Your task to perform on an android device: uninstall "Google Calendar" Image 0: 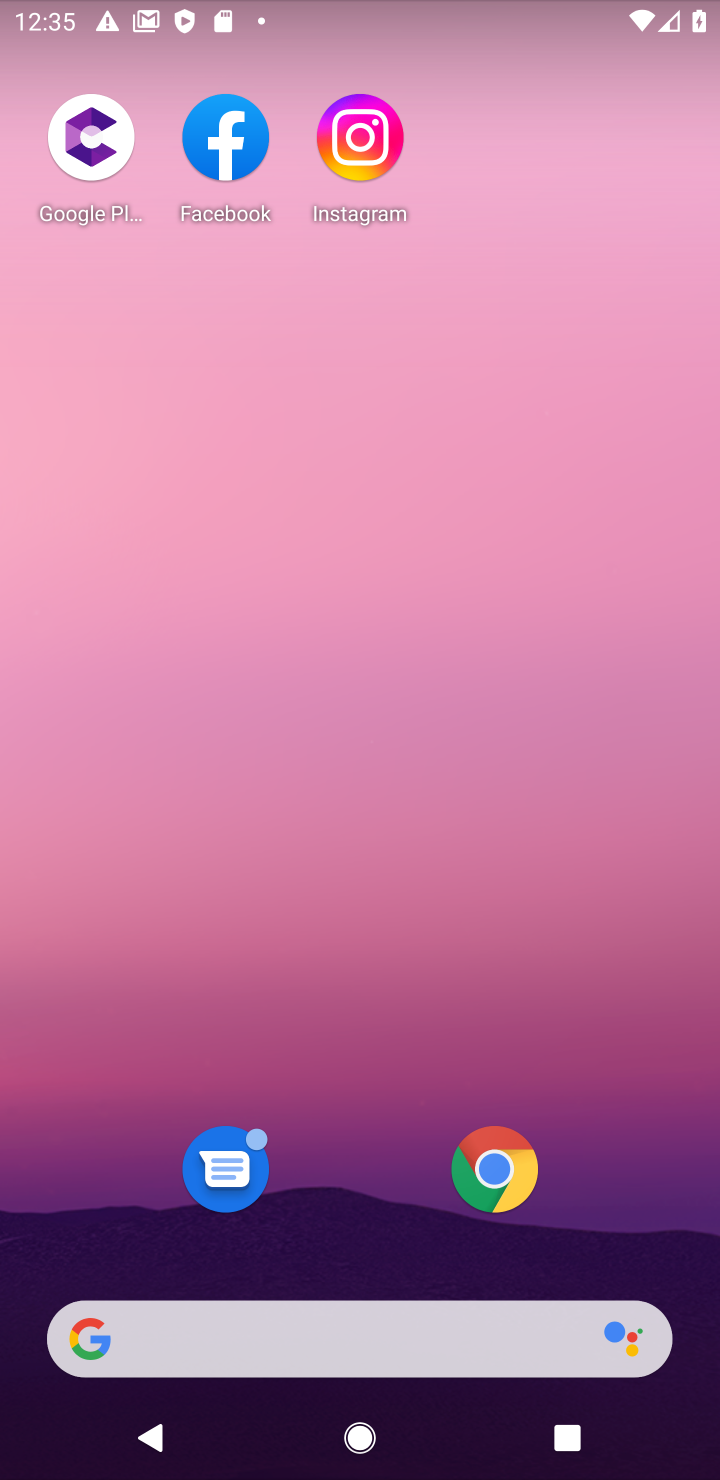
Step 0: drag from (353, 1139) to (645, 271)
Your task to perform on an android device: uninstall "Google Calendar" Image 1: 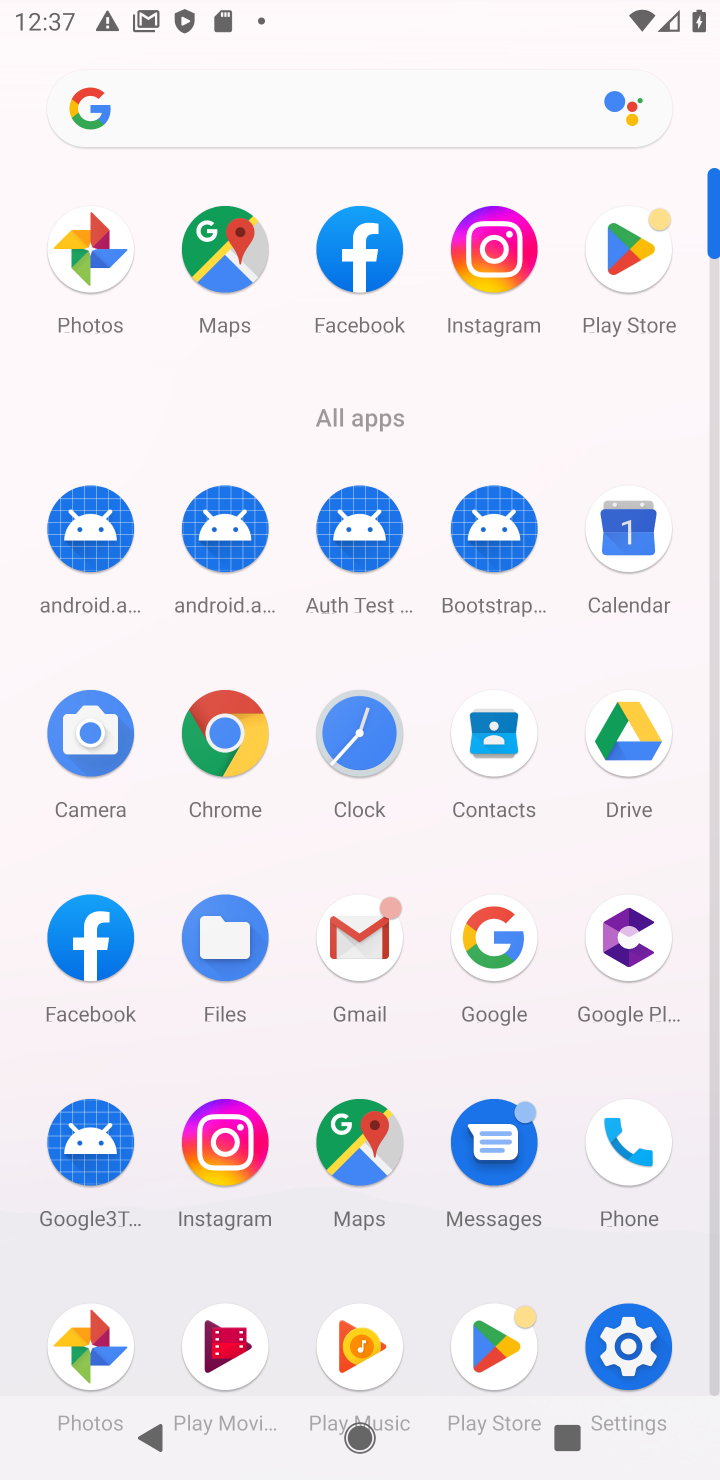
Step 1: click (650, 587)
Your task to perform on an android device: uninstall "Google Calendar" Image 2: 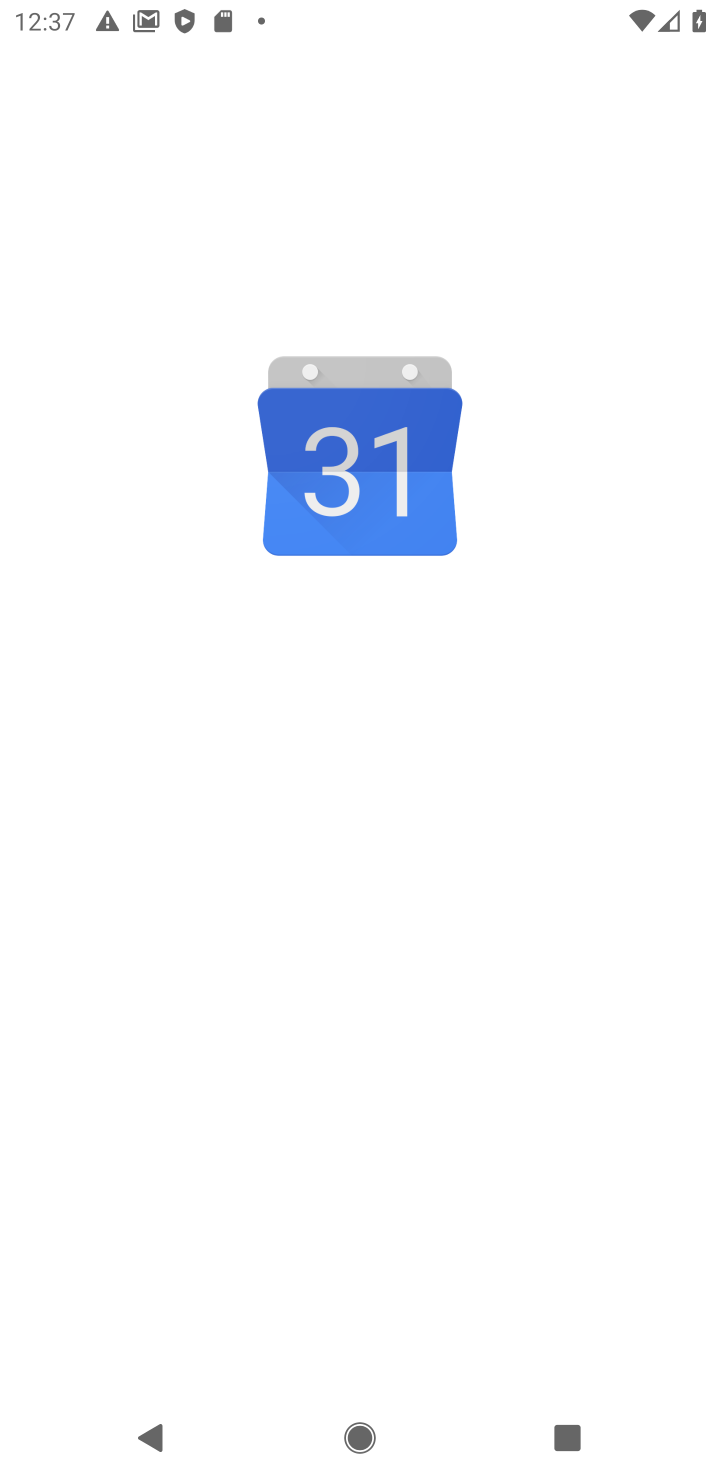
Step 2: press back button
Your task to perform on an android device: uninstall "Google Calendar" Image 3: 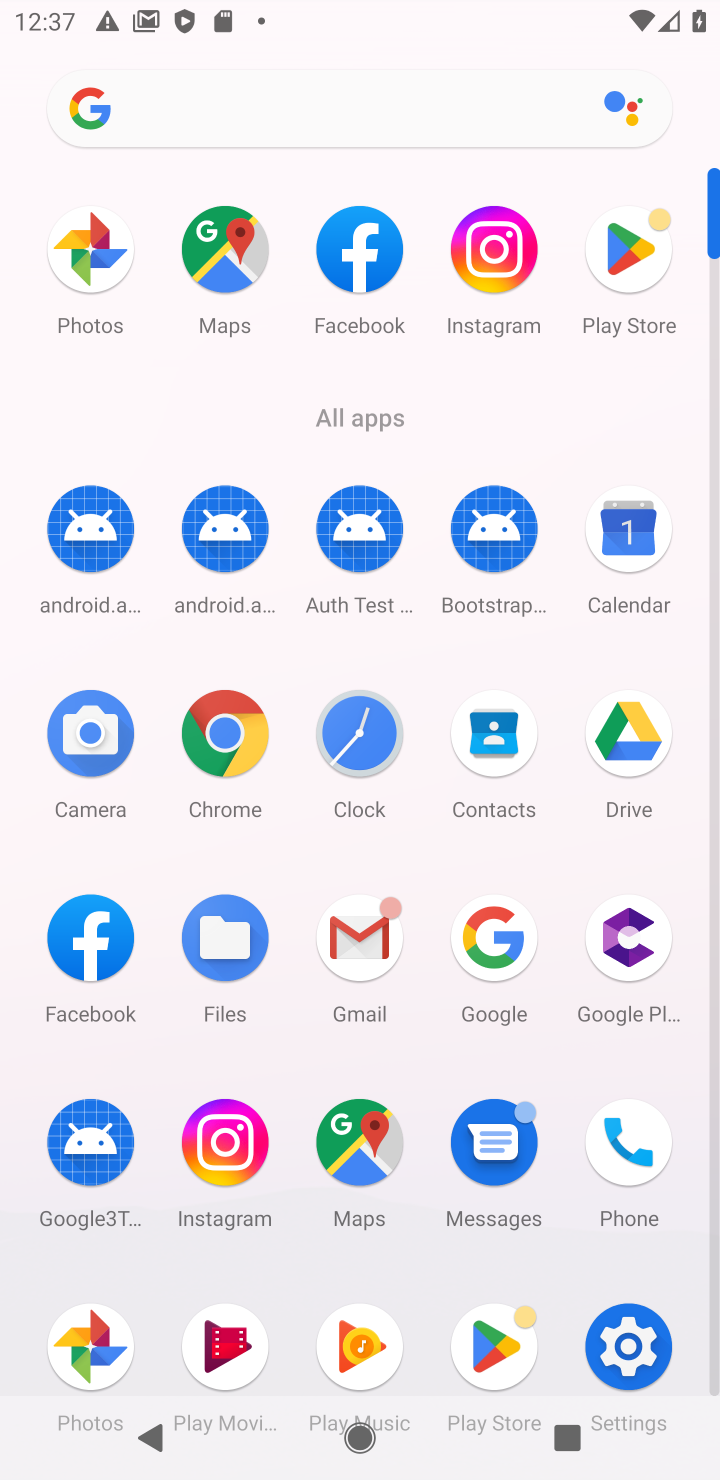
Step 3: press back button
Your task to perform on an android device: uninstall "Google Calendar" Image 4: 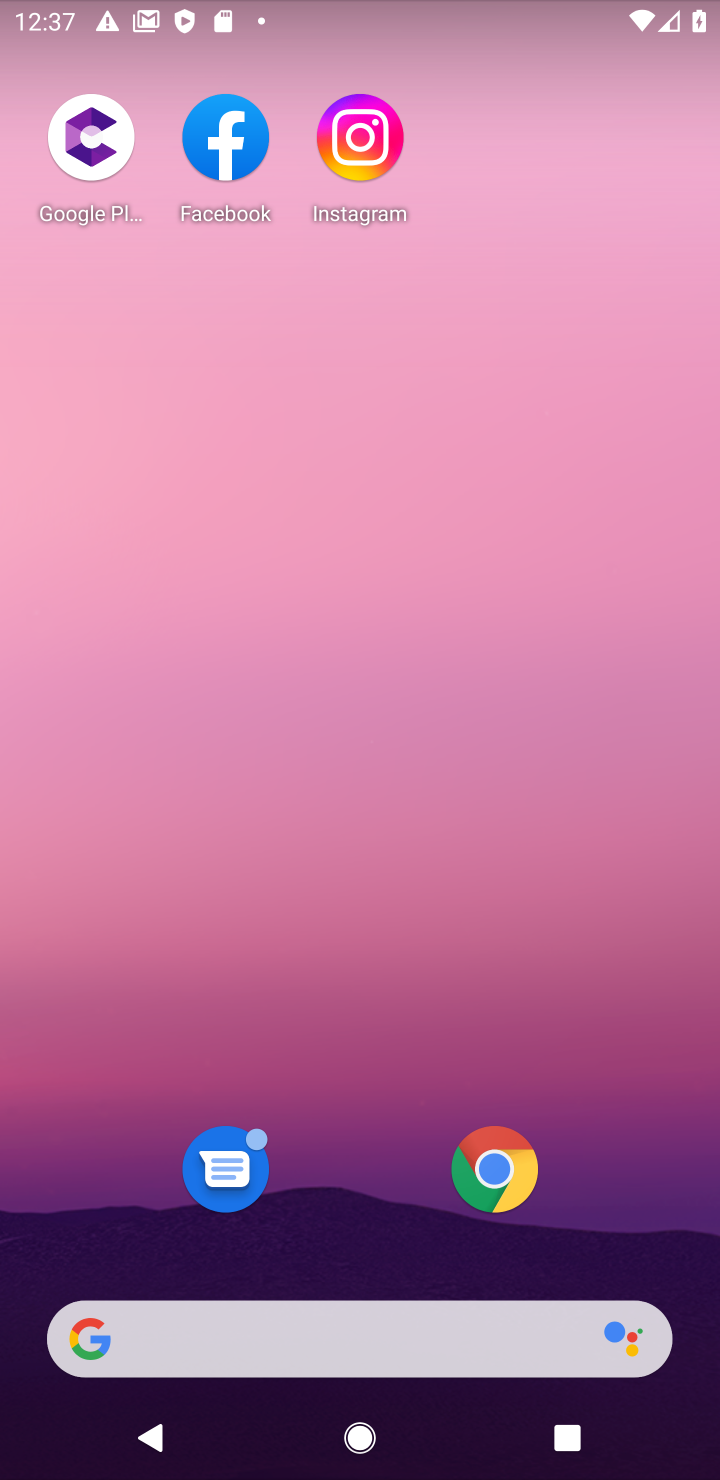
Step 4: drag from (286, 1006) to (234, 359)
Your task to perform on an android device: uninstall "Google Calendar" Image 5: 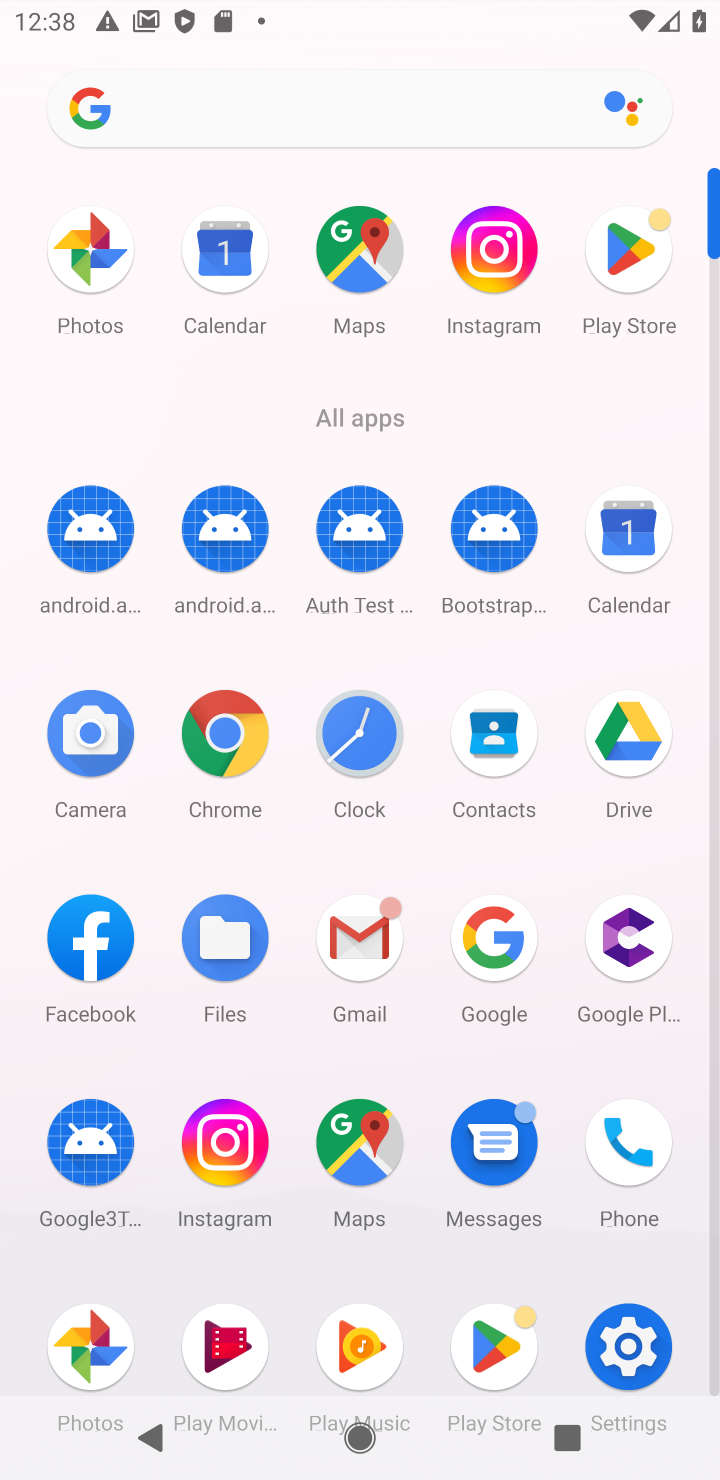
Step 5: click (523, 1336)
Your task to perform on an android device: uninstall "Google Calendar" Image 6: 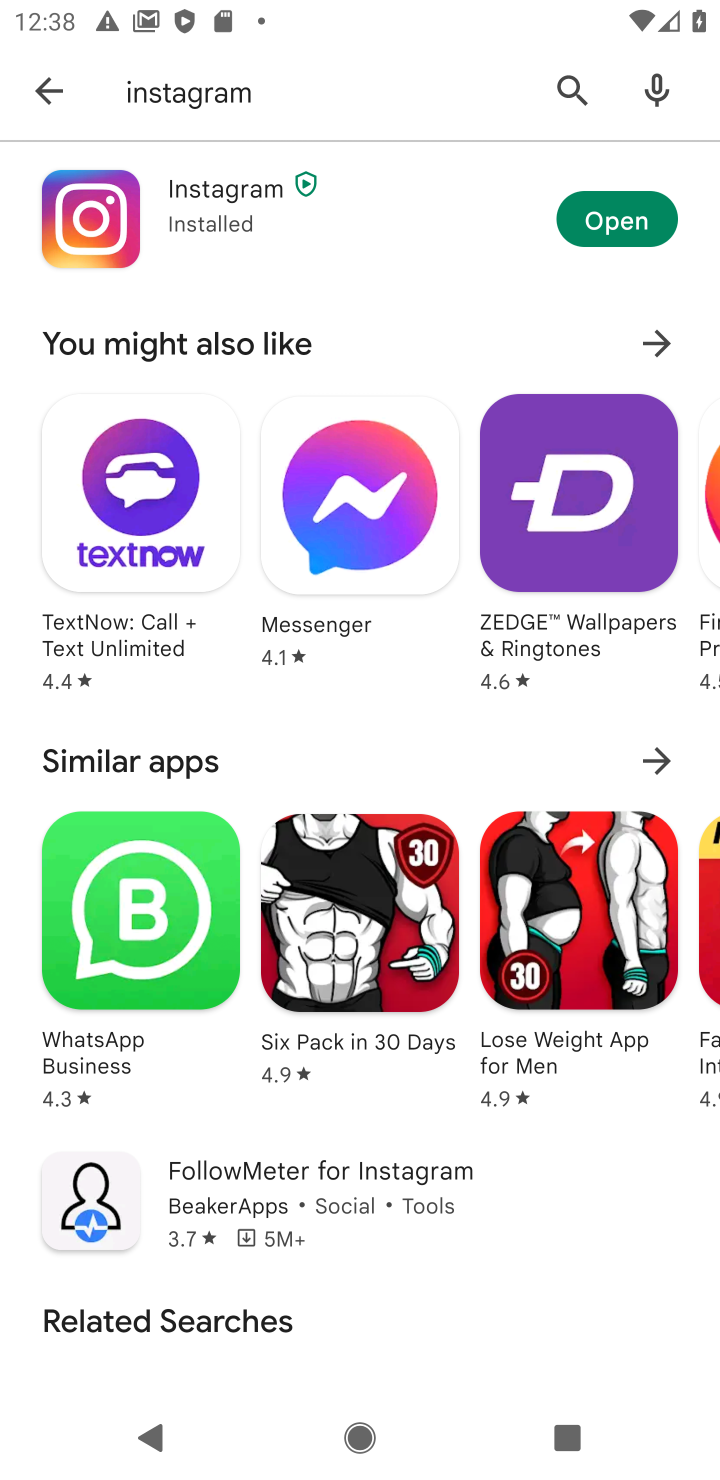
Step 6: click (63, 101)
Your task to perform on an android device: uninstall "Google Calendar" Image 7: 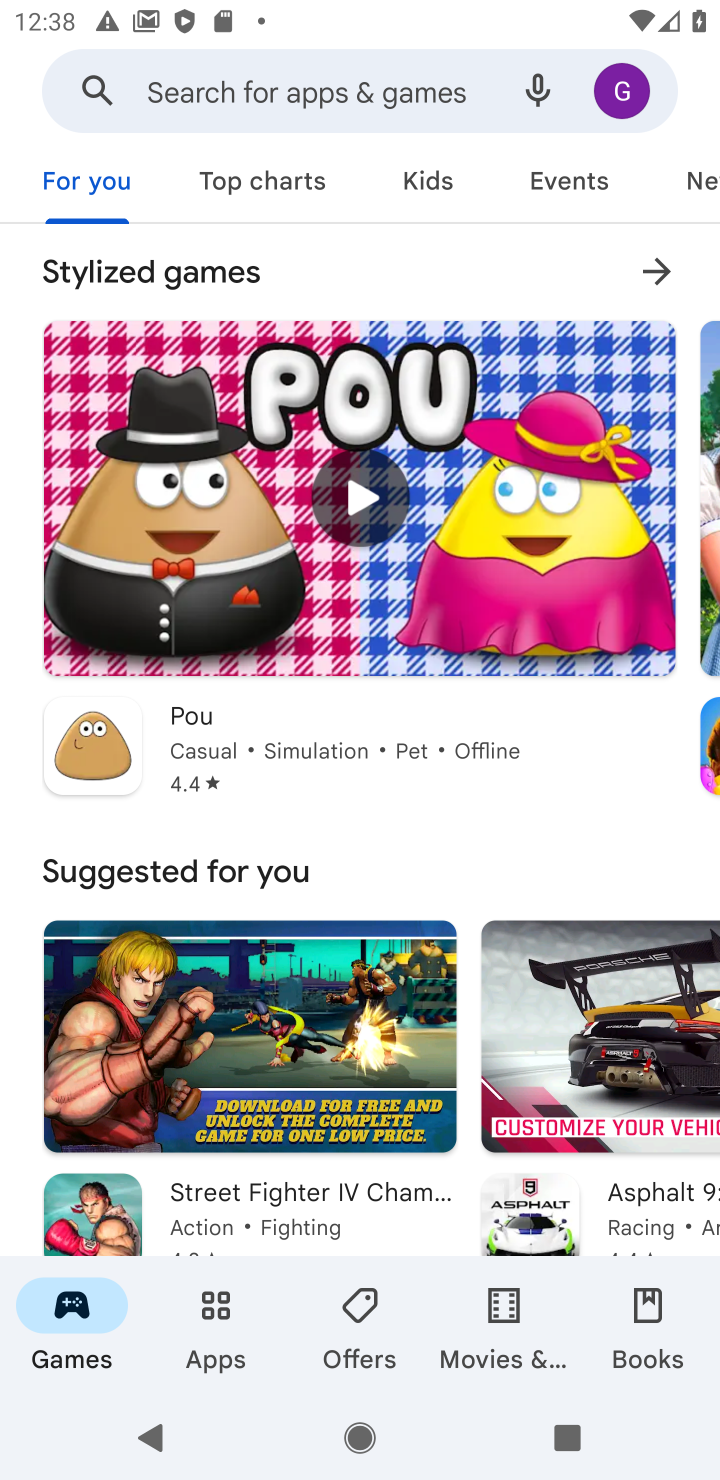
Step 7: click (293, 101)
Your task to perform on an android device: uninstall "Google Calendar" Image 8: 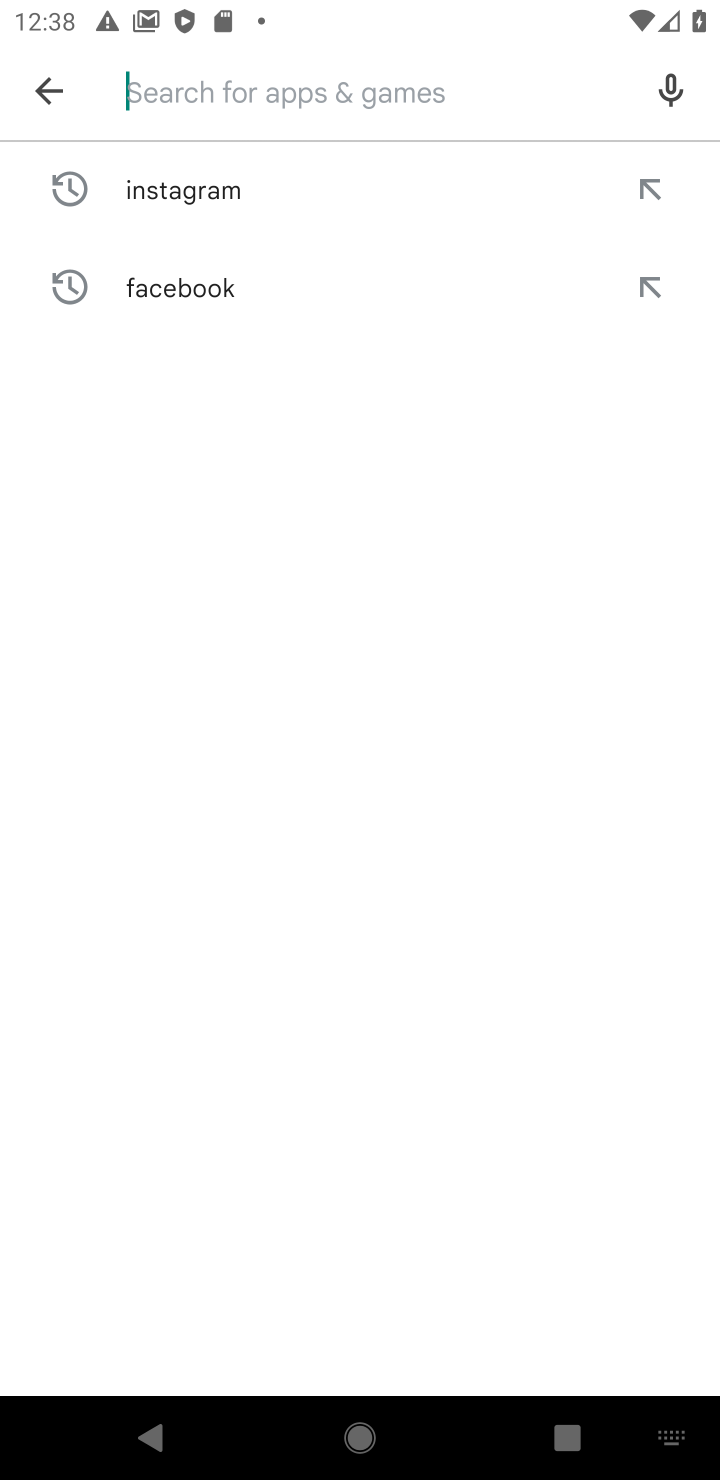
Step 8: type "google calender"
Your task to perform on an android device: uninstall "Google Calendar" Image 9: 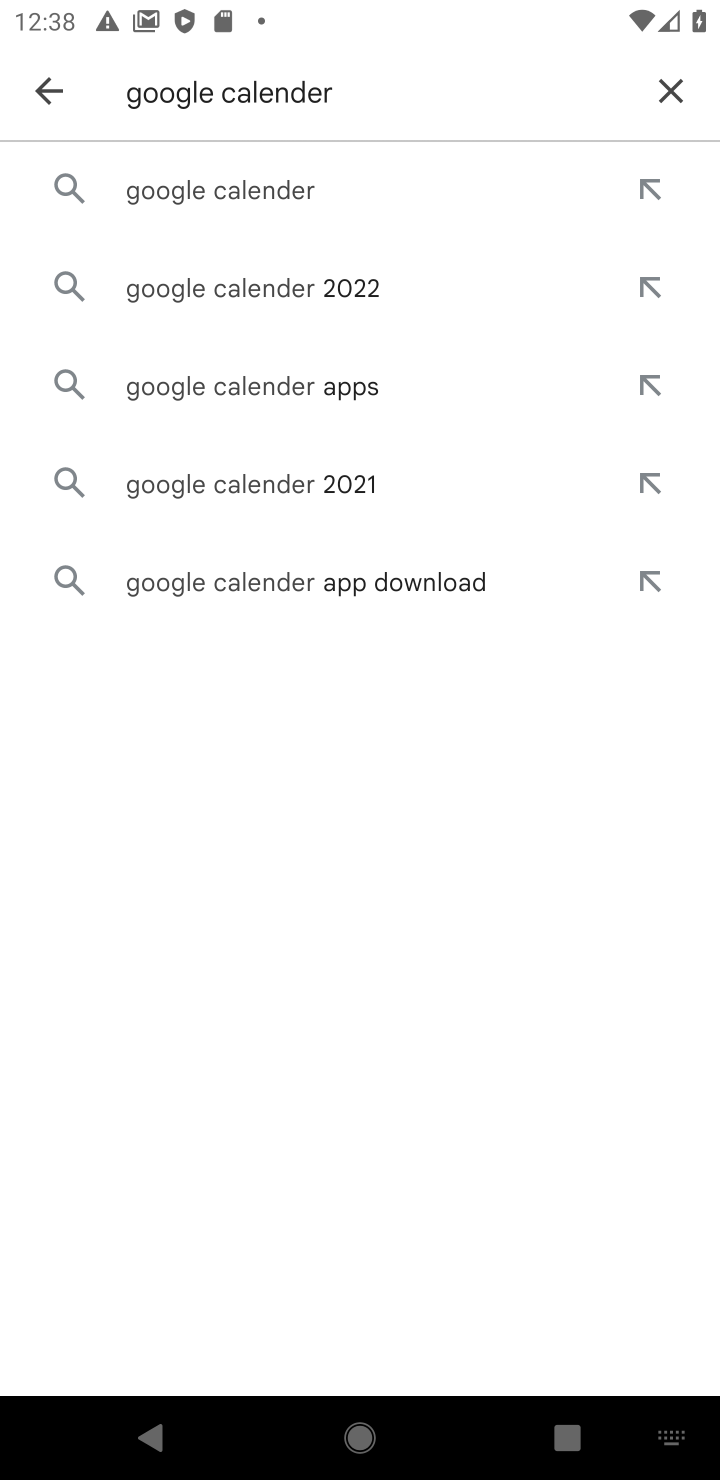
Step 9: click (228, 186)
Your task to perform on an android device: uninstall "Google Calendar" Image 10: 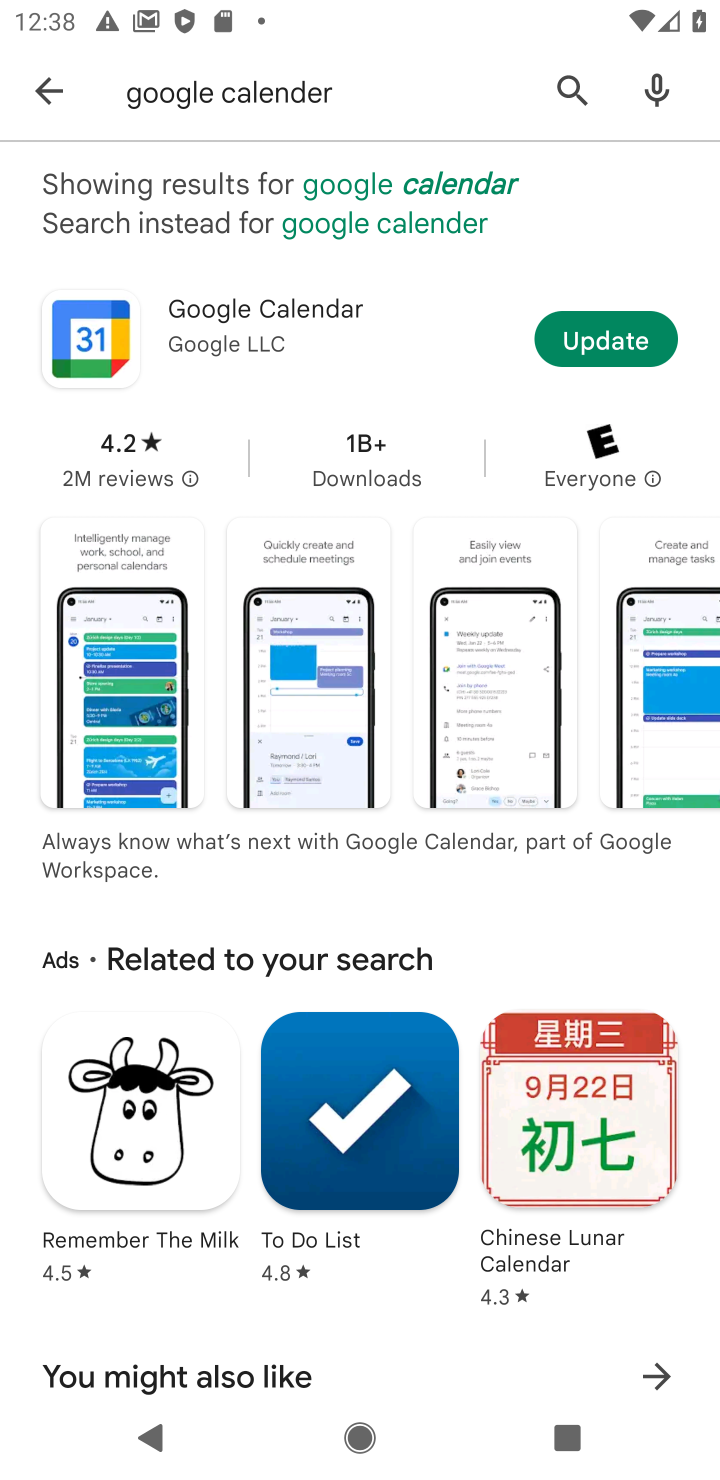
Step 10: click (241, 315)
Your task to perform on an android device: uninstall "Google Calendar" Image 11: 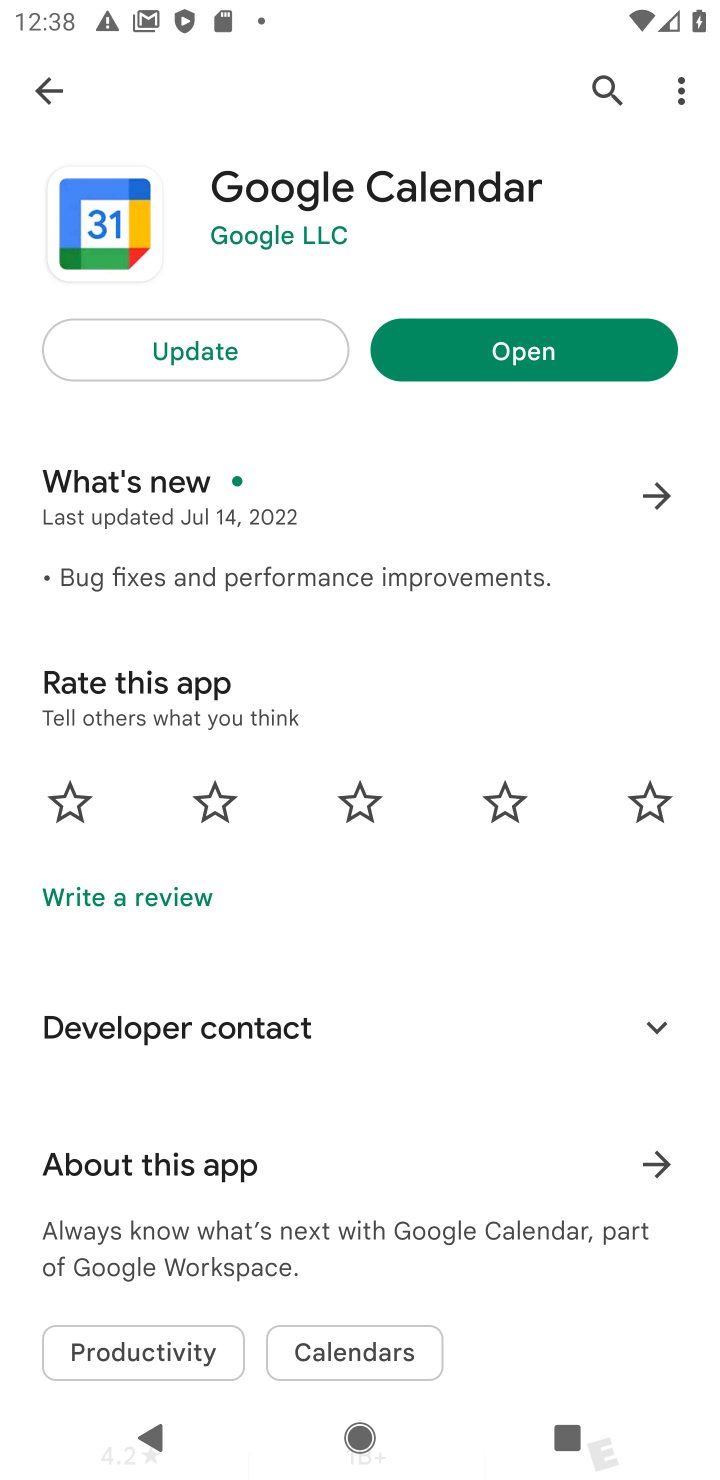
Step 11: click (189, 338)
Your task to perform on an android device: uninstall "Google Calendar" Image 12: 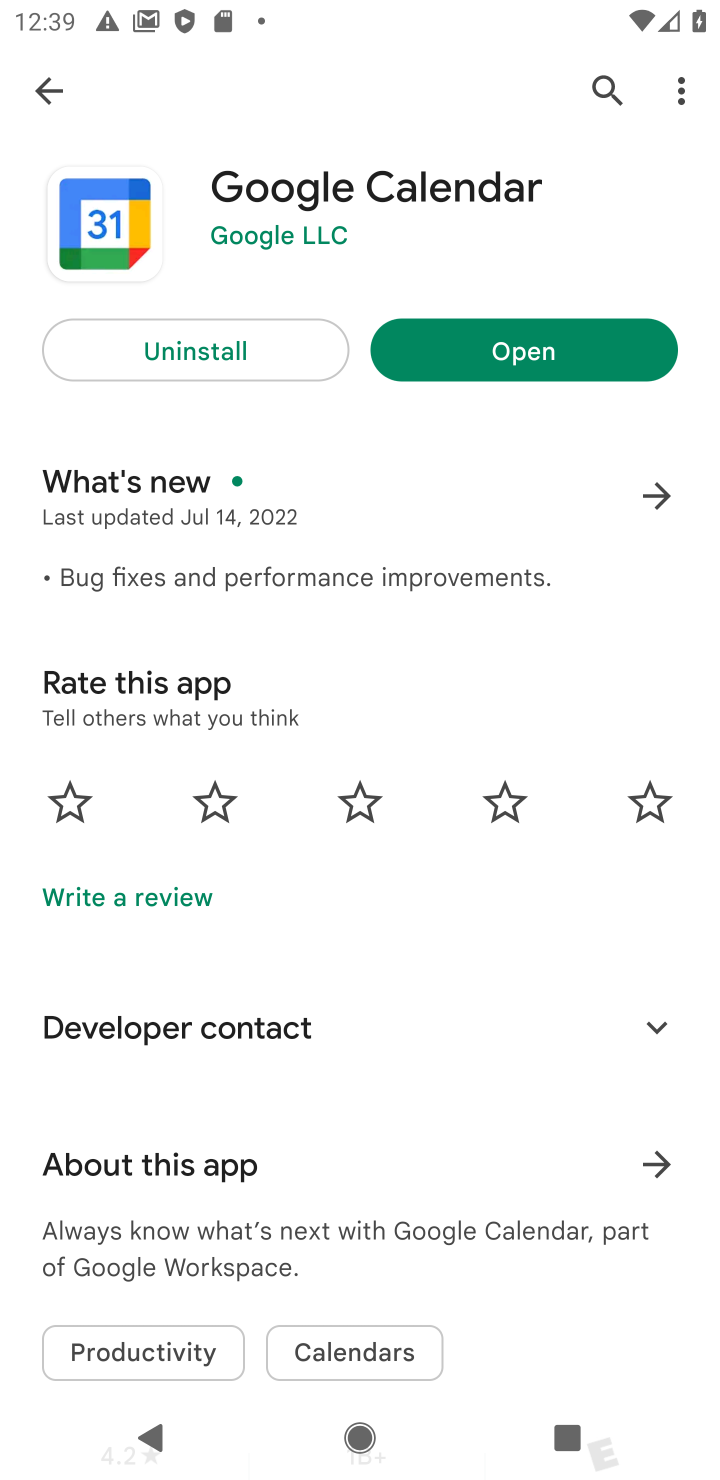
Step 12: click (169, 350)
Your task to perform on an android device: uninstall "Google Calendar" Image 13: 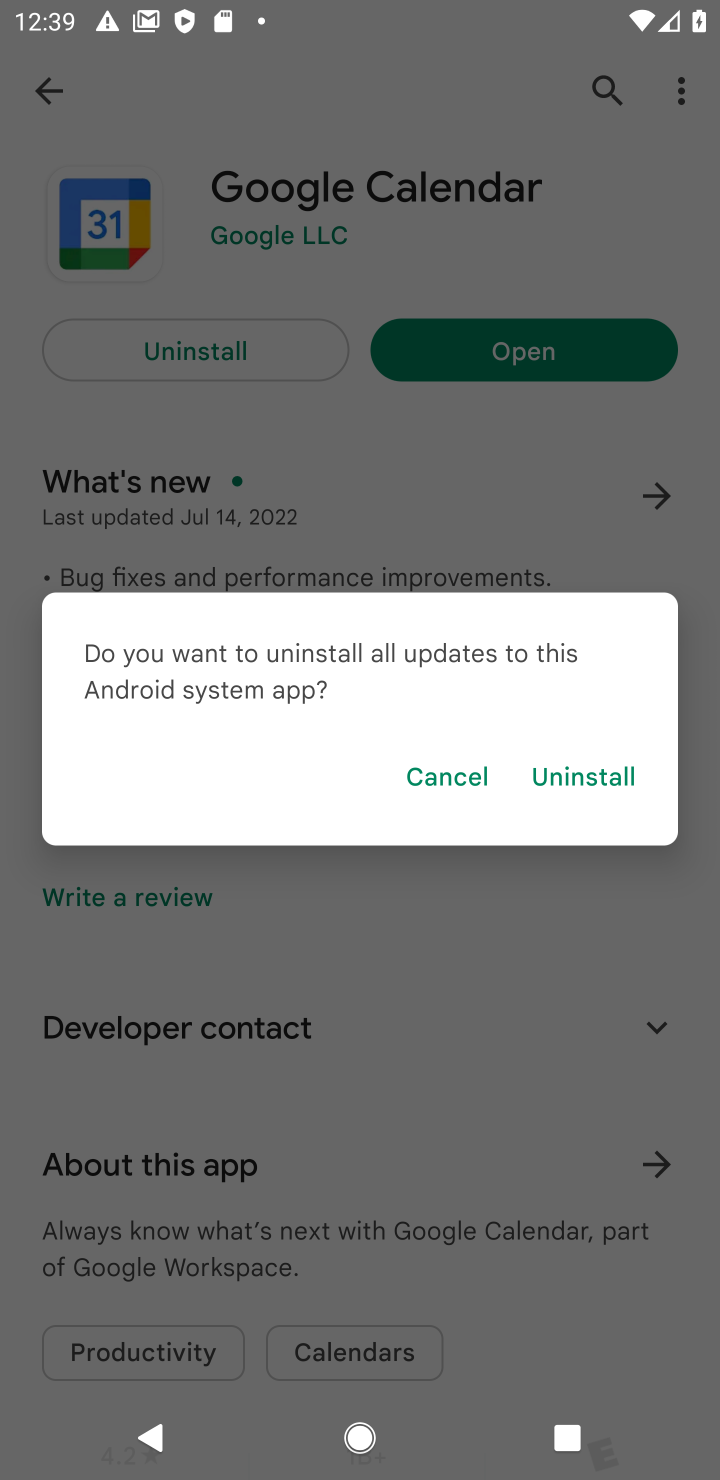
Step 13: click (600, 777)
Your task to perform on an android device: uninstall "Google Calendar" Image 14: 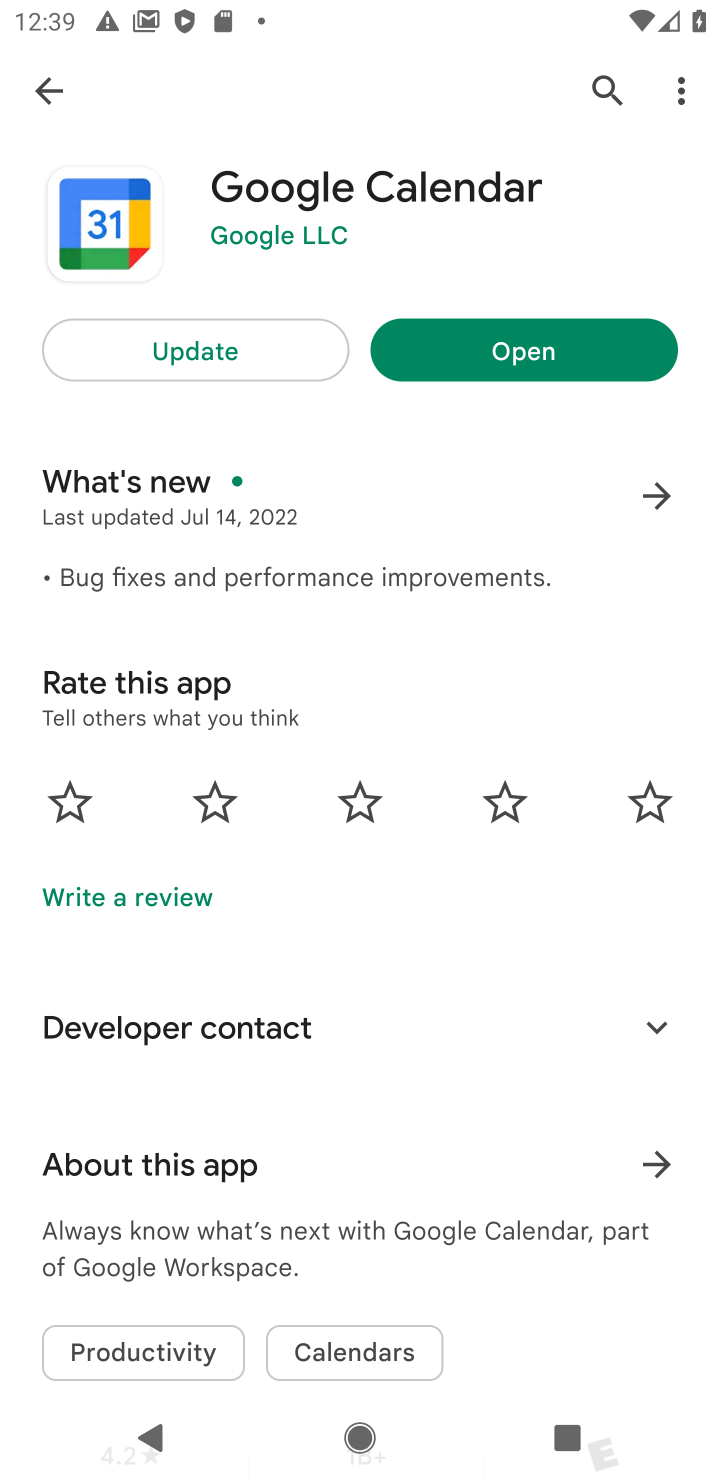
Step 14: task complete